Your task to perform on an android device: Open Reddit.com Image 0: 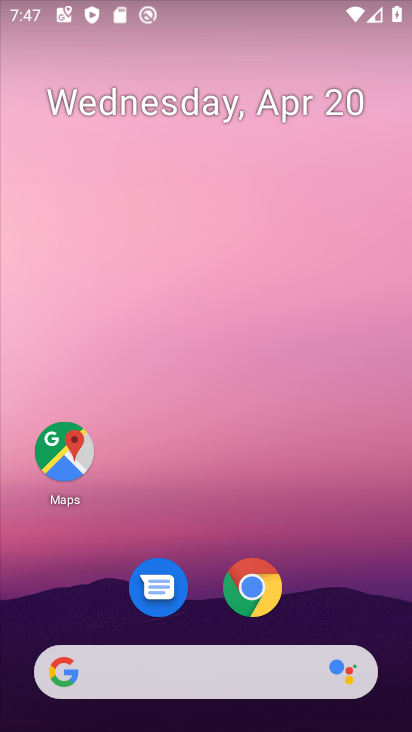
Step 0: drag from (318, 595) to (341, 199)
Your task to perform on an android device: Open Reddit.com Image 1: 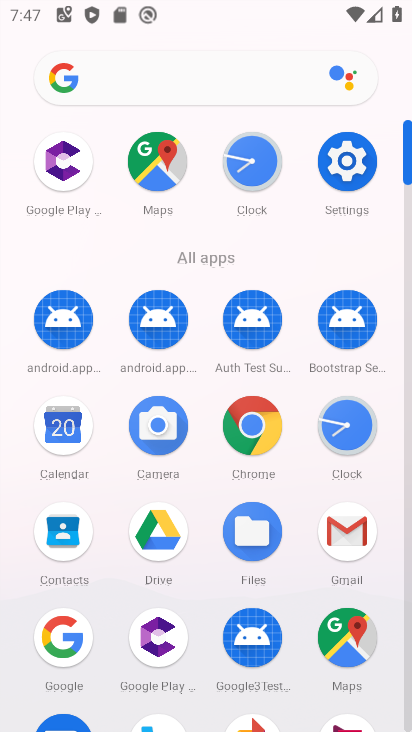
Step 1: click (254, 430)
Your task to perform on an android device: Open Reddit.com Image 2: 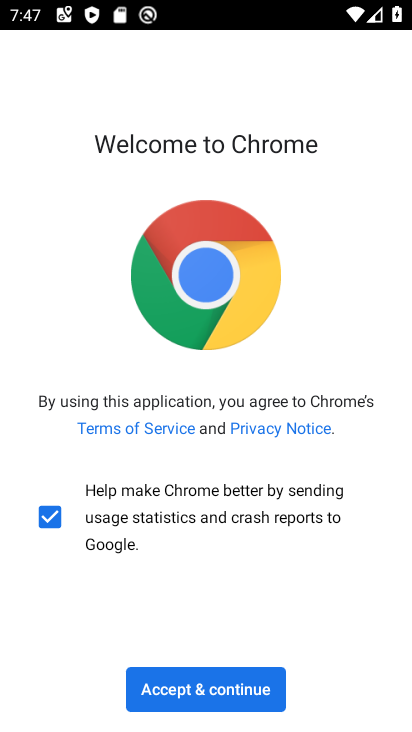
Step 2: click (238, 683)
Your task to perform on an android device: Open Reddit.com Image 3: 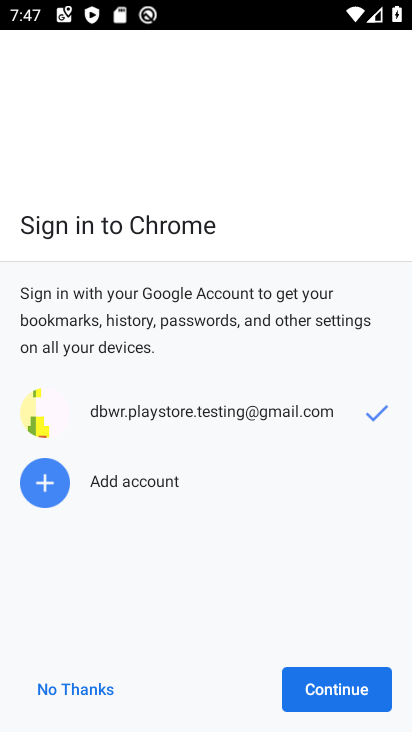
Step 3: click (374, 685)
Your task to perform on an android device: Open Reddit.com Image 4: 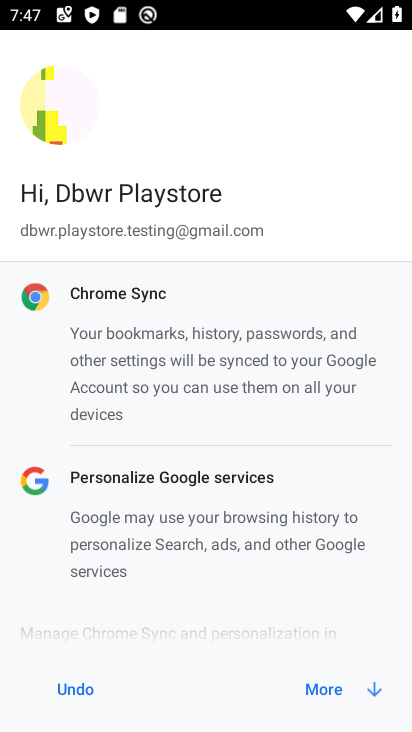
Step 4: click (331, 683)
Your task to perform on an android device: Open Reddit.com Image 5: 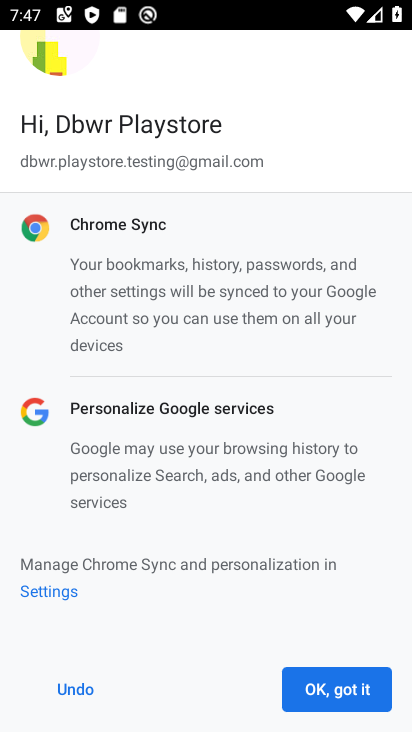
Step 5: click (336, 693)
Your task to perform on an android device: Open Reddit.com Image 6: 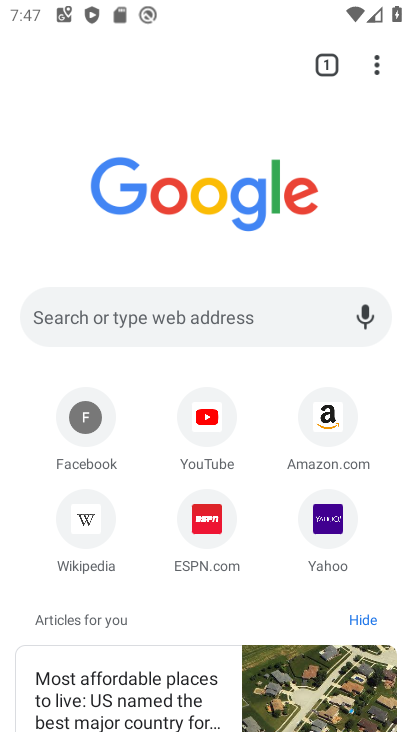
Step 6: click (190, 306)
Your task to perform on an android device: Open Reddit.com Image 7: 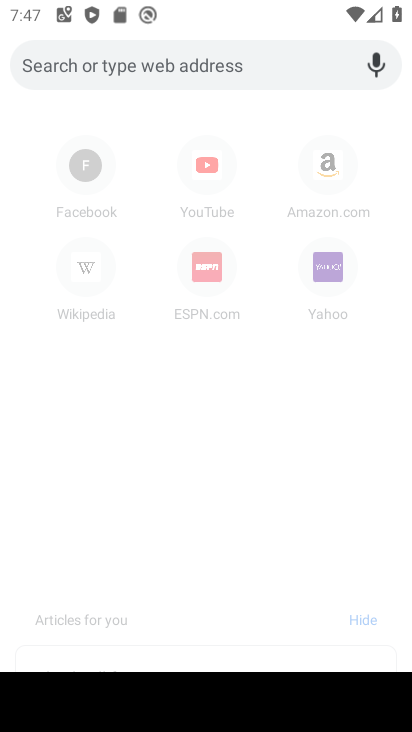
Step 7: type "Reddit.com"
Your task to perform on an android device: Open Reddit.com Image 8: 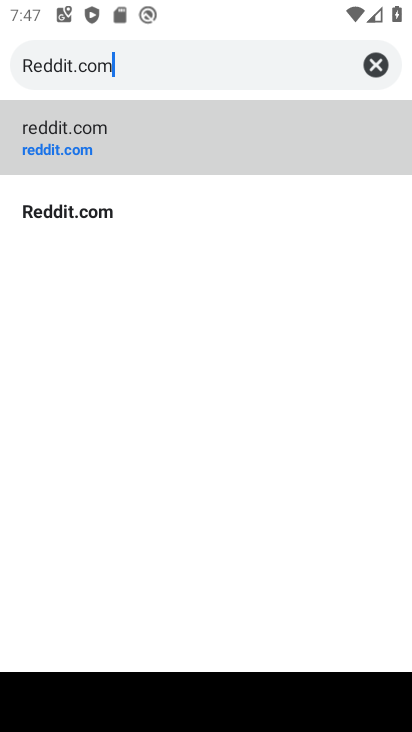
Step 8: click (102, 214)
Your task to perform on an android device: Open Reddit.com Image 9: 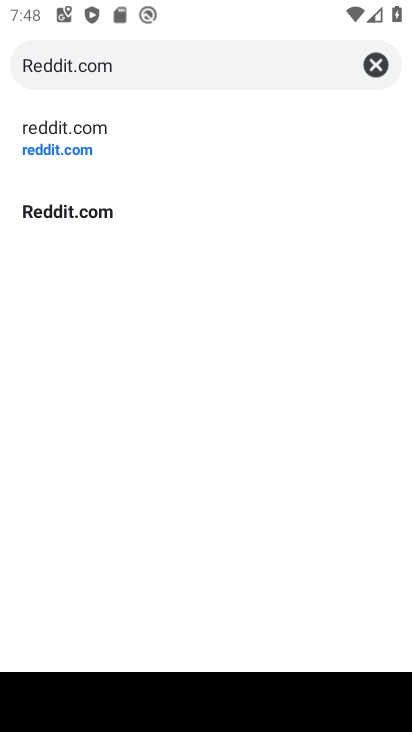
Step 9: click (60, 205)
Your task to perform on an android device: Open Reddit.com Image 10: 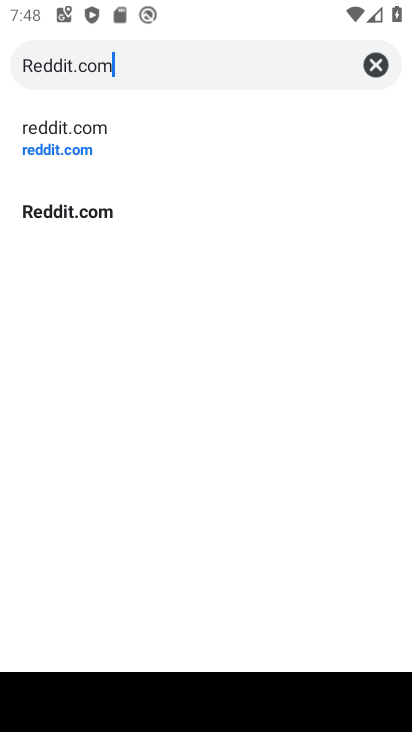
Step 10: click (65, 146)
Your task to perform on an android device: Open Reddit.com Image 11: 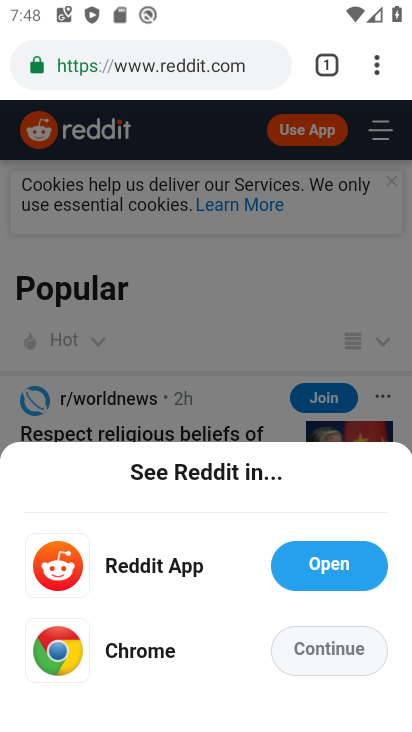
Step 11: click (347, 660)
Your task to perform on an android device: Open Reddit.com Image 12: 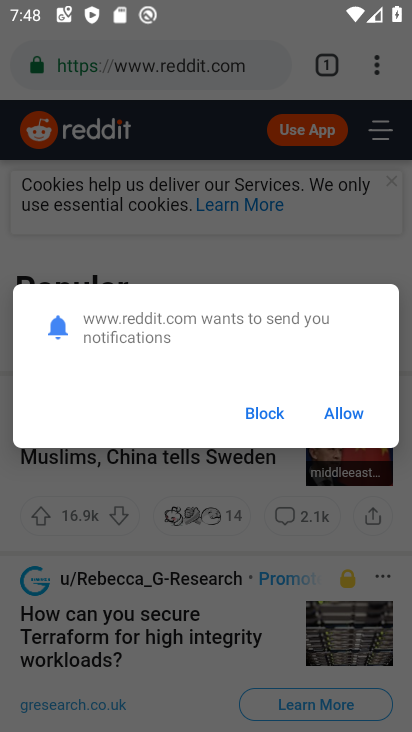
Step 12: click (264, 421)
Your task to perform on an android device: Open Reddit.com Image 13: 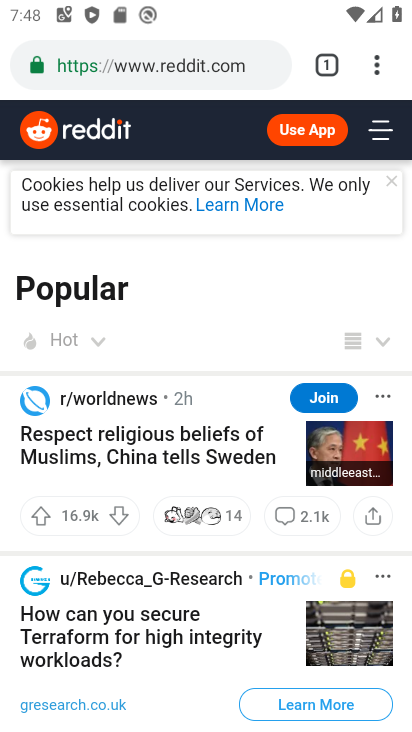
Step 13: task complete